Your task to perform on an android device: Open the web browser Image 0: 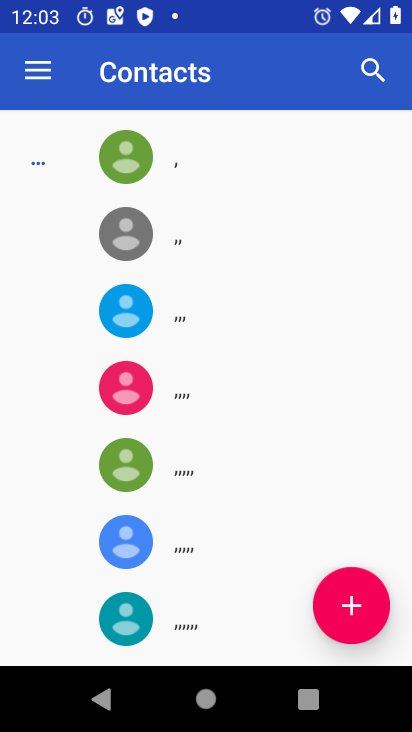
Step 0: press home button
Your task to perform on an android device: Open the web browser Image 1: 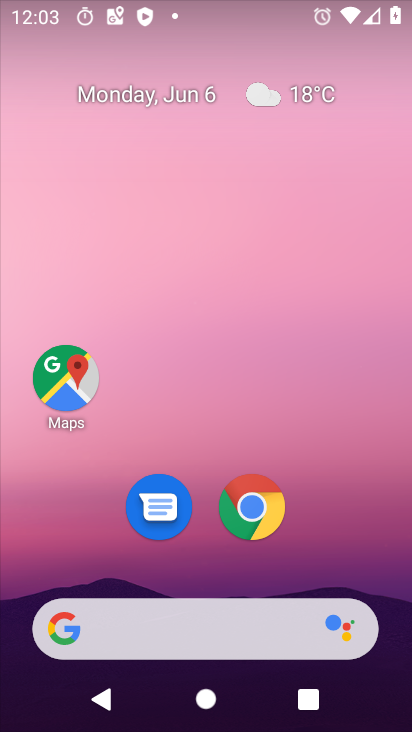
Step 1: click (253, 507)
Your task to perform on an android device: Open the web browser Image 2: 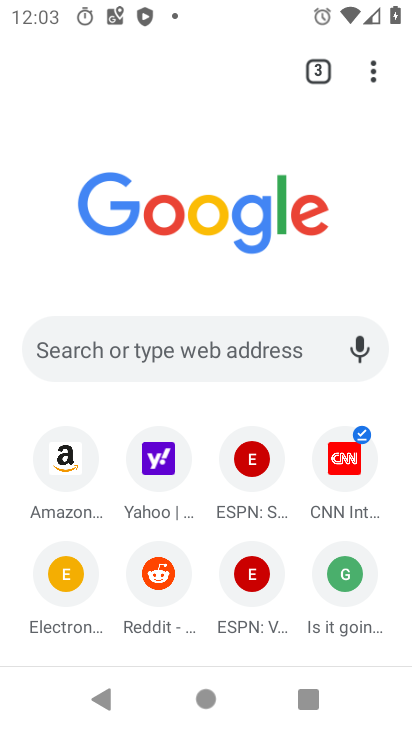
Step 2: task complete